Your task to perform on an android device: Go to wifi settings Image 0: 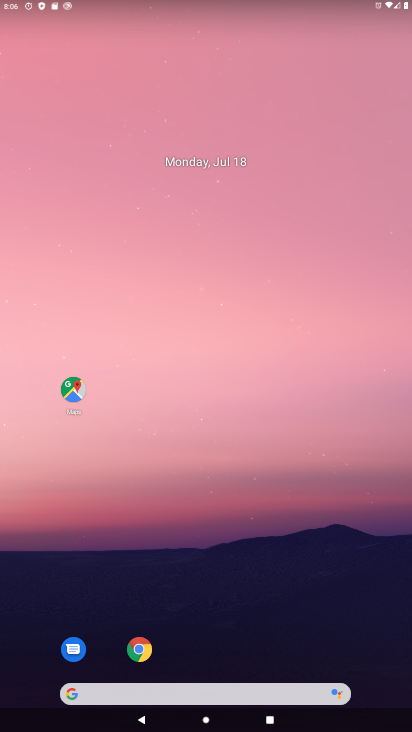
Step 0: drag from (318, 594) to (329, 74)
Your task to perform on an android device: Go to wifi settings Image 1: 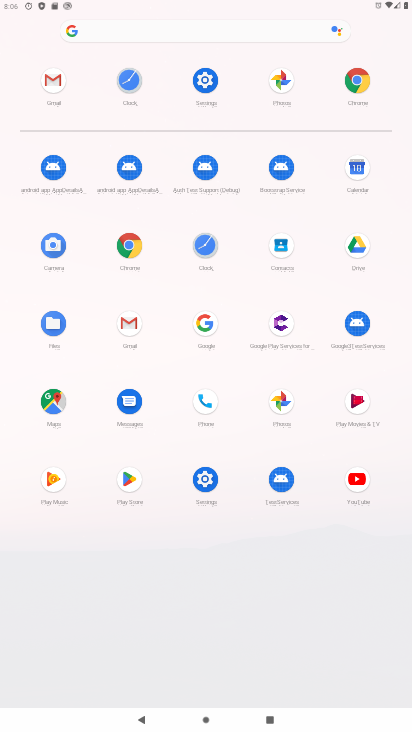
Step 1: click (201, 76)
Your task to perform on an android device: Go to wifi settings Image 2: 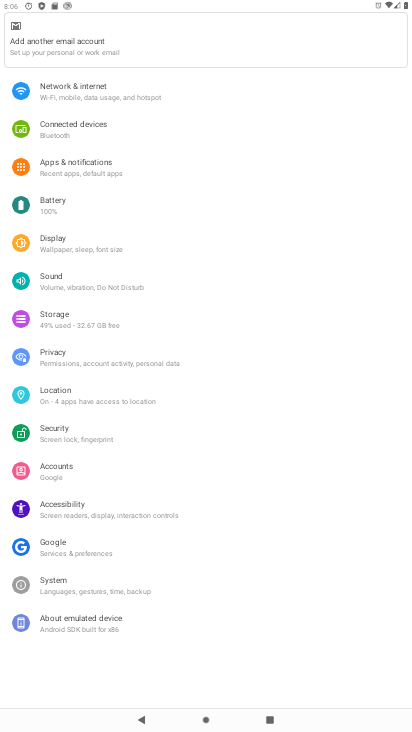
Step 2: click (119, 89)
Your task to perform on an android device: Go to wifi settings Image 3: 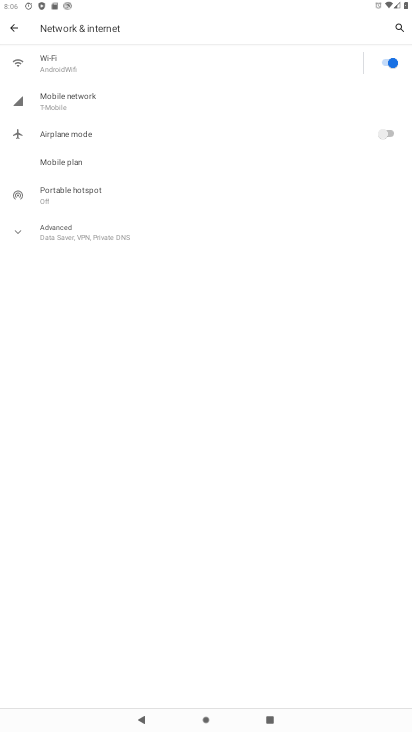
Step 3: click (206, 58)
Your task to perform on an android device: Go to wifi settings Image 4: 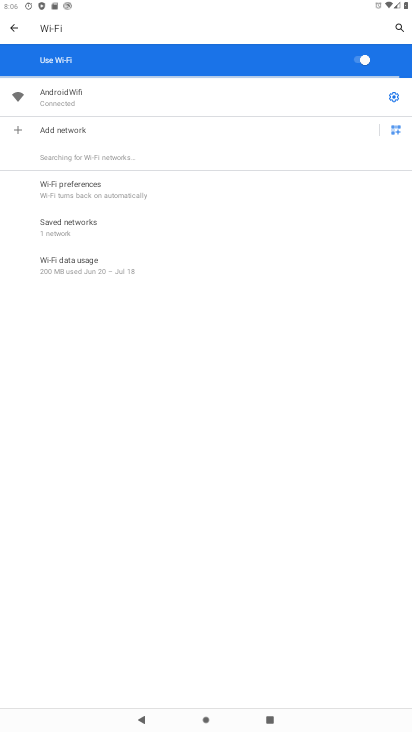
Step 4: click (394, 99)
Your task to perform on an android device: Go to wifi settings Image 5: 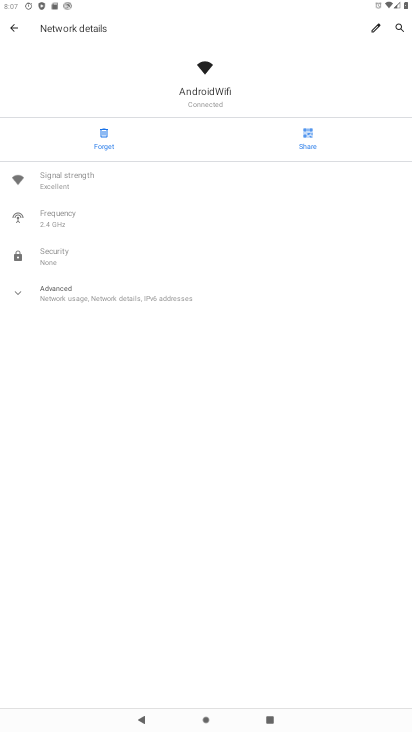
Step 5: task complete